Your task to perform on an android device: change text size in settings app Image 0: 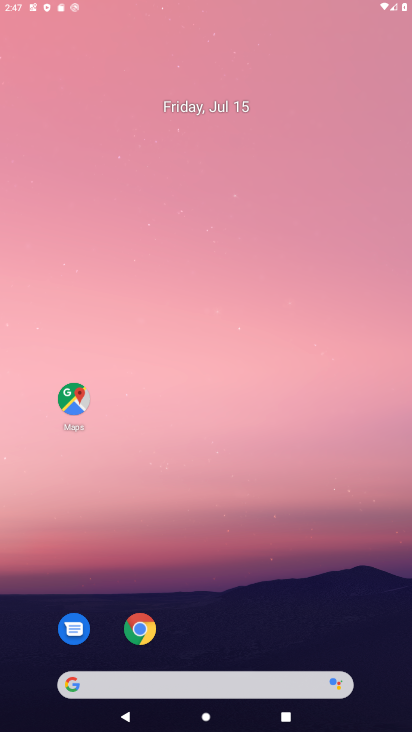
Step 0: click (138, 612)
Your task to perform on an android device: change text size in settings app Image 1: 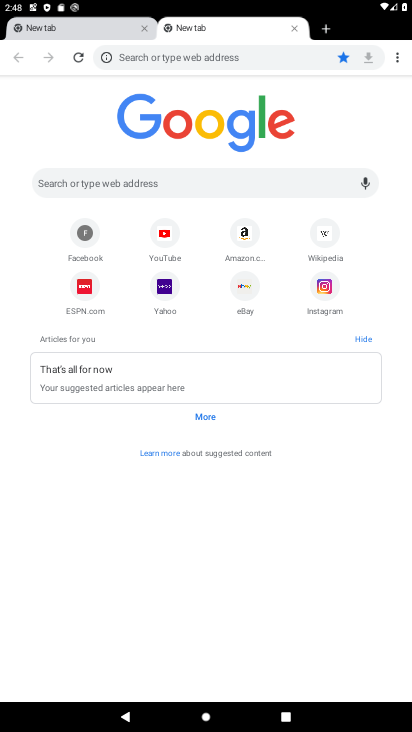
Step 1: press home button
Your task to perform on an android device: change text size in settings app Image 2: 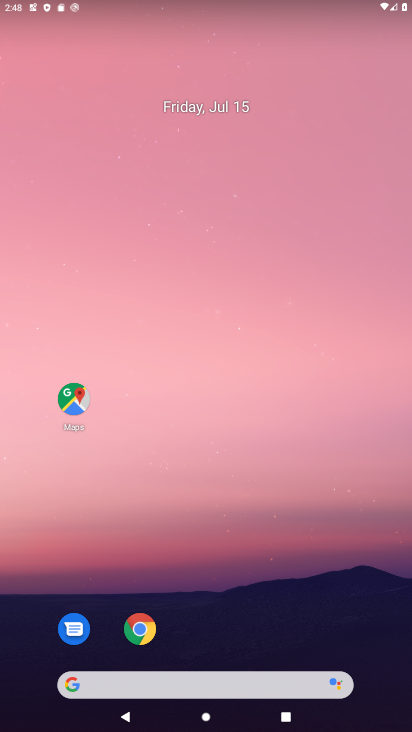
Step 2: drag from (162, 658) to (100, 54)
Your task to perform on an android device: change text size in settings app Image 3: 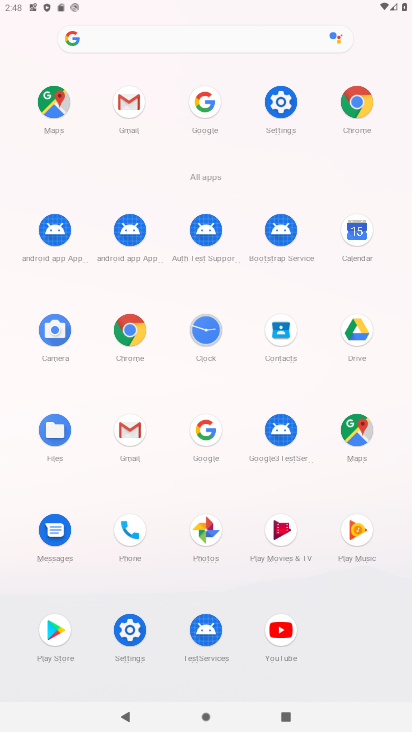
Step 3: click (132, 642)
Your task to perform on an android device: change text size in settings app Image 4: 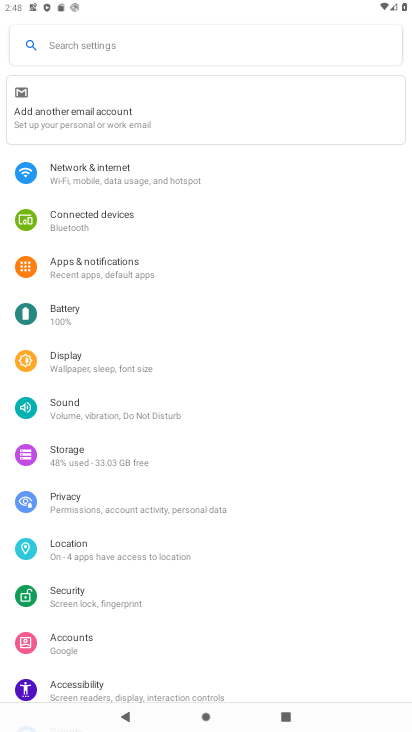
Step 4: click (84, 369)
Your task to perform on an android device: change text size in settings app Image 5: 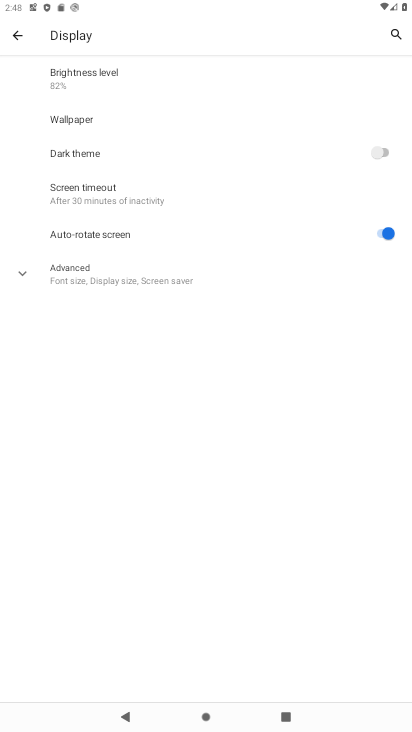
Step 5: click (92, 262)
Your task to perform on an android device: change text size in settings app Image 6: 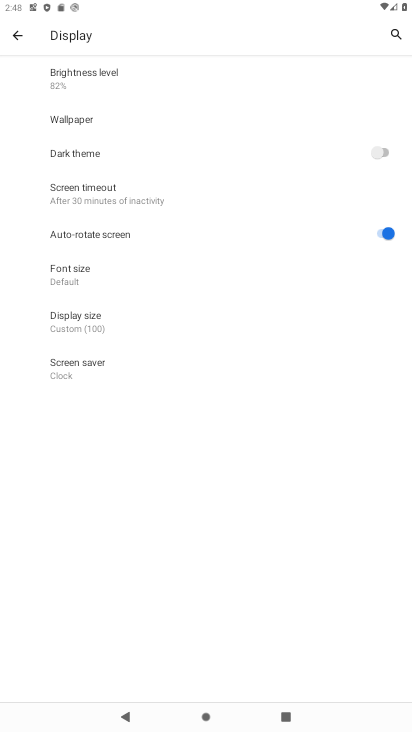
Step 6: click (67, 280)
Your task to perform on an android device: change text size in settings app Image 7: 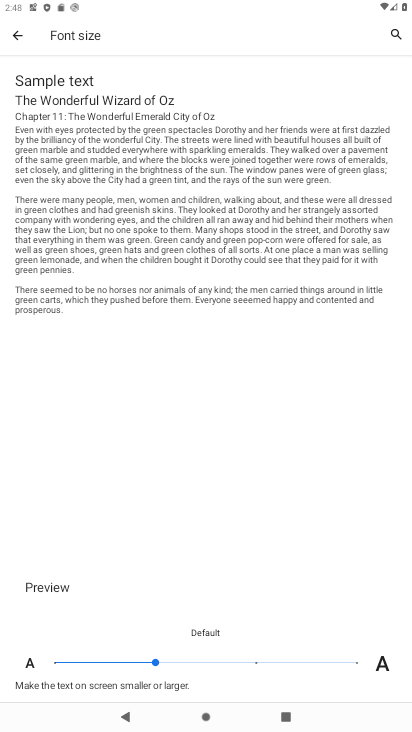
Step 7: click (245, 660)
Your task to perform on an android device: change text size in settings app Image 8: 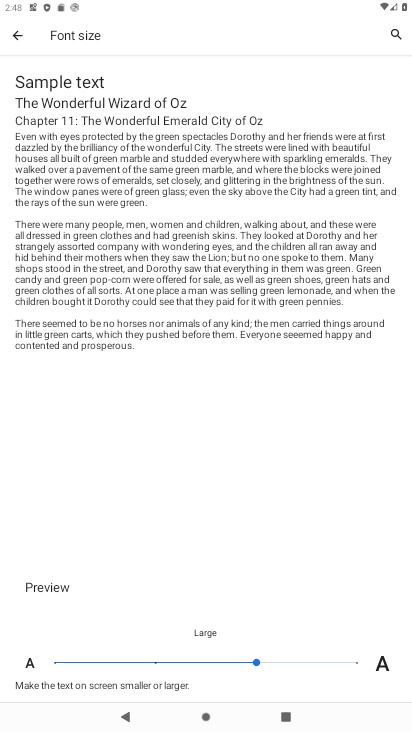
Step 8: task complete